Your task to perform on an android device: Clear all items from cart on bestbuy. Image 0: 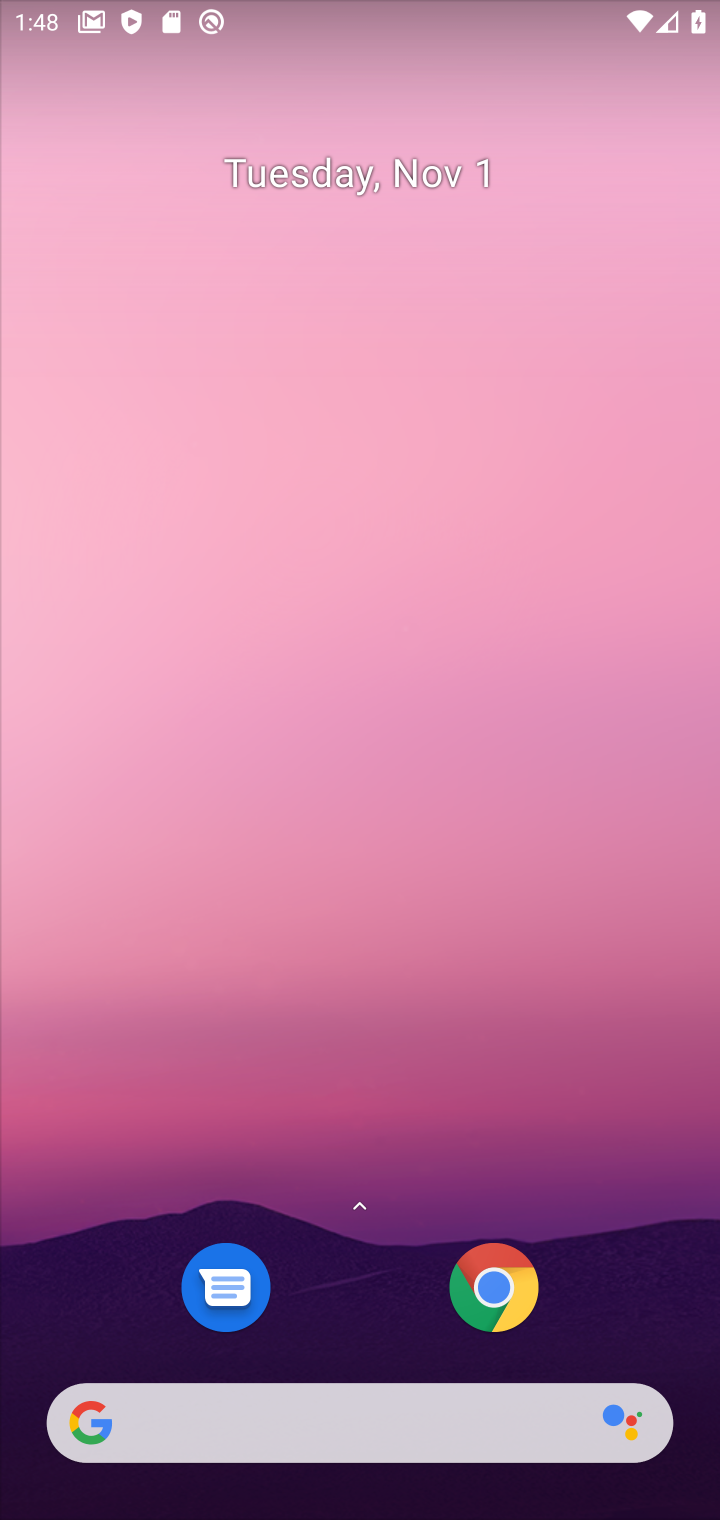
Step 0: drag from (332, 1337) to (436, 531)
Your task to perform on an android device: Clear all items from cart on bestbuy. Image 1: 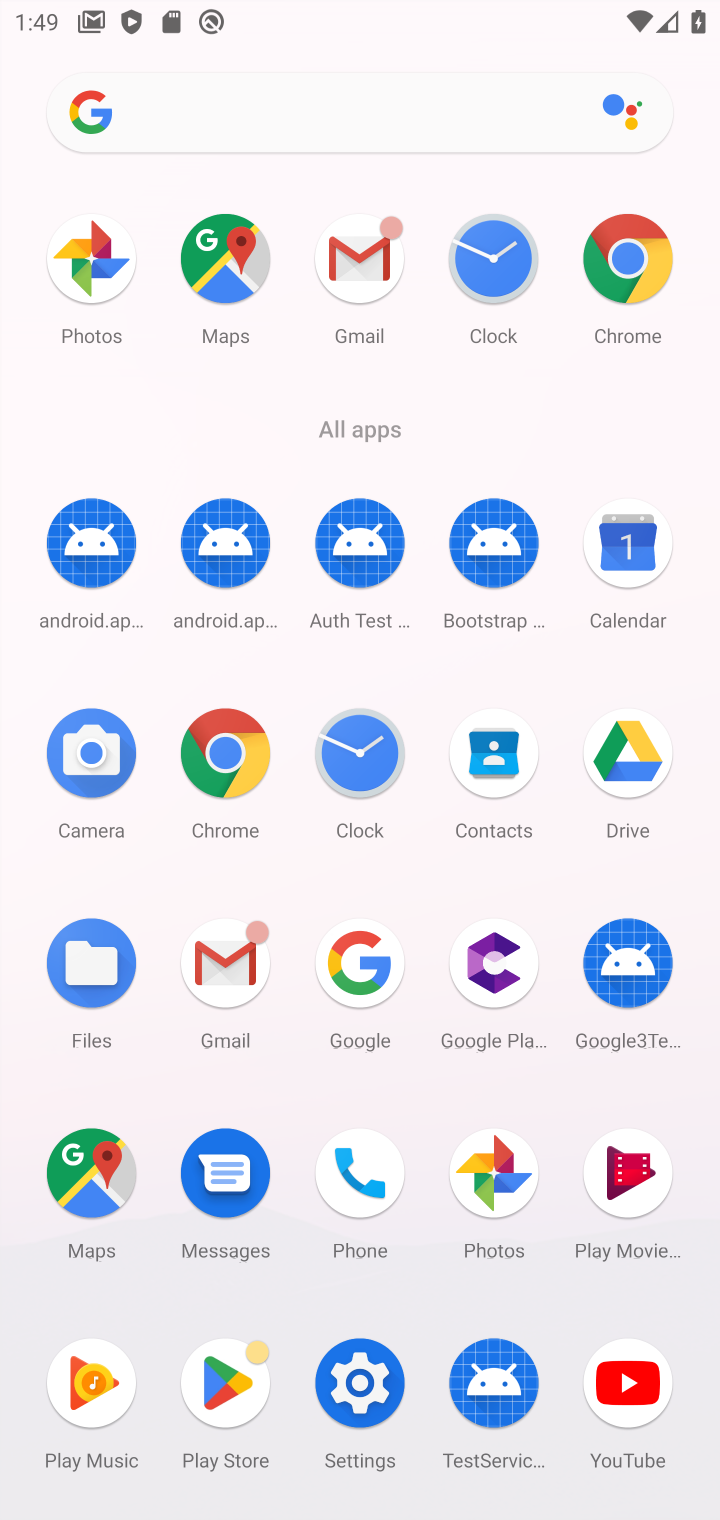
Step 1: click (229, 753)
Your task to perform on an android device: Clear all items from cart on bestbuy. Image 2: 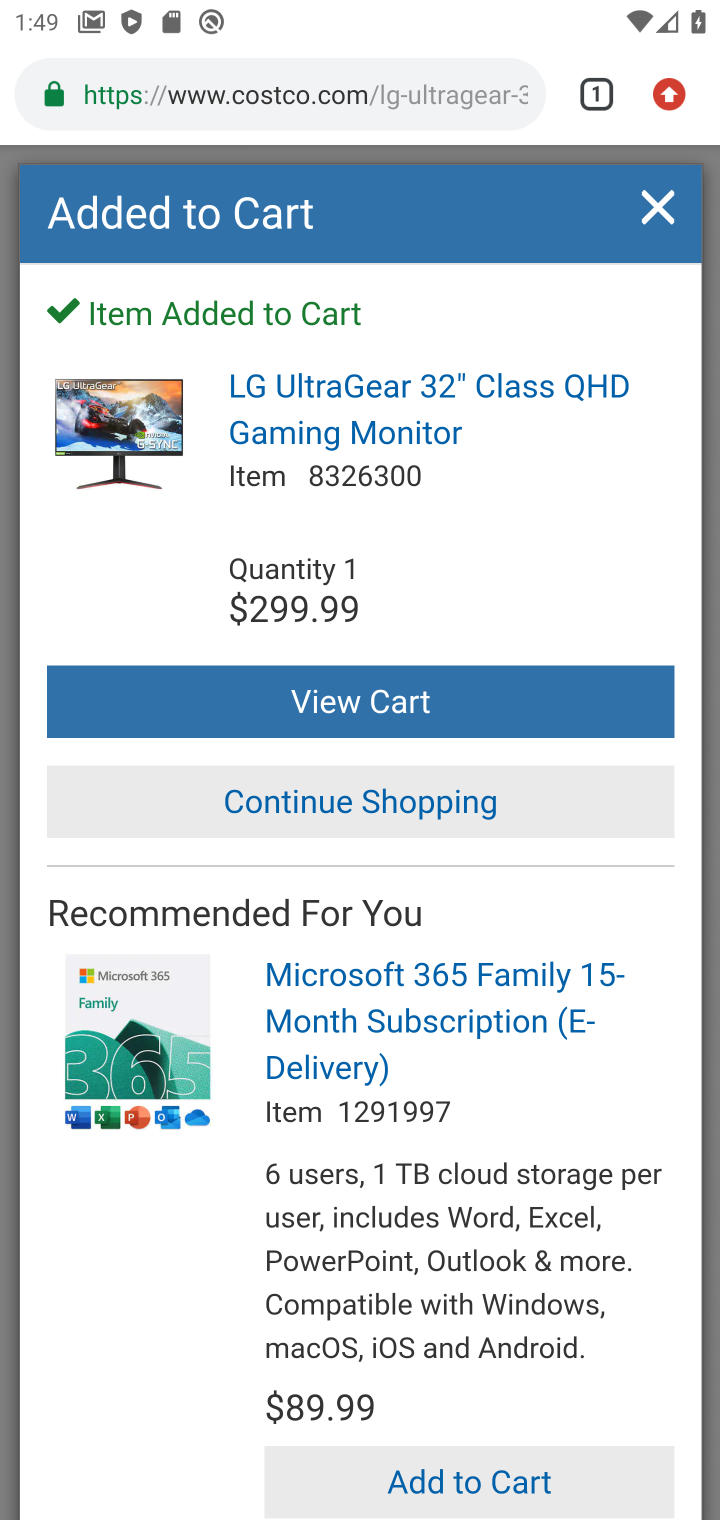
Step 2: drag from (387, 198) to (235, 662)
Your task to perform on an android device: Clear all items from cart on bestbuy. Image 3: 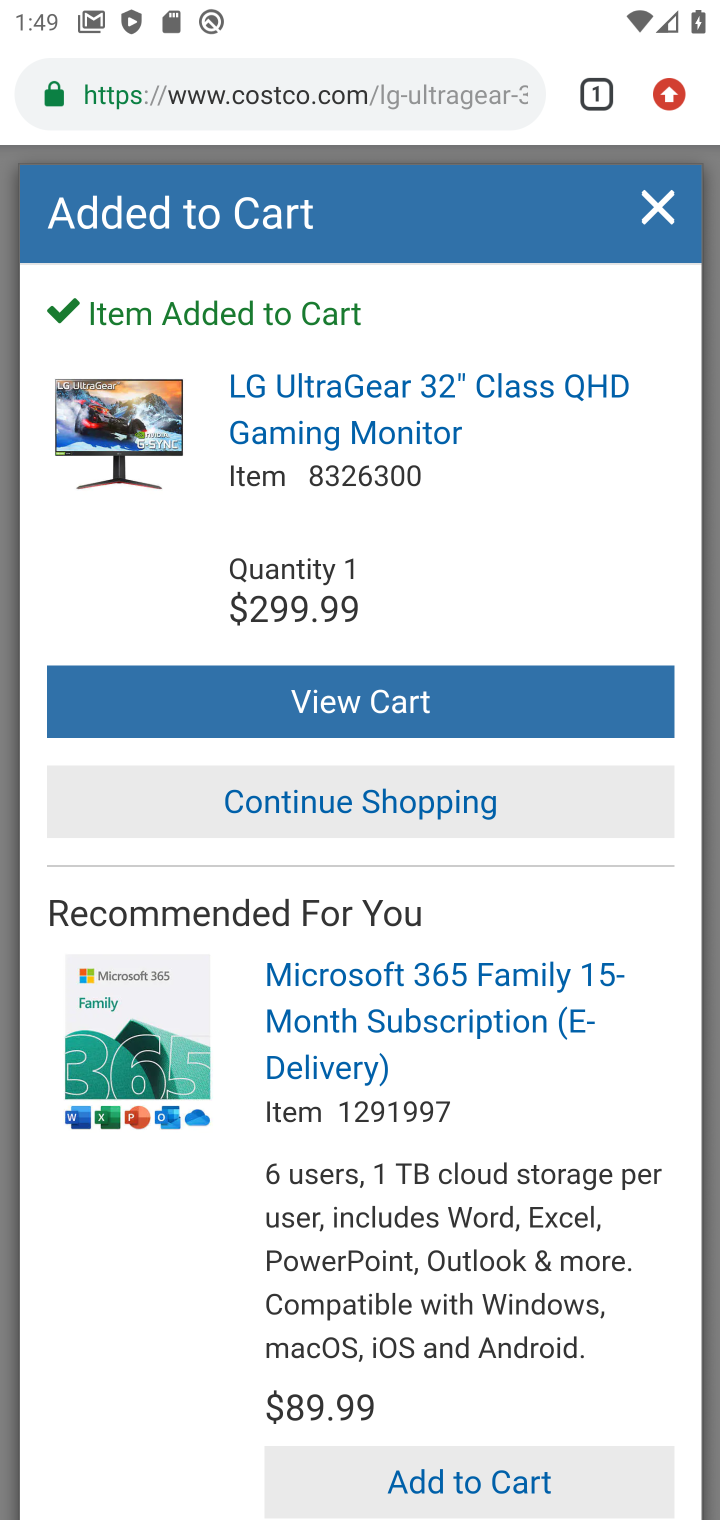
Step 3: click (401, 103)
Your task to perform on an android device: Clear all items from cart on bestbuy. Image 4: 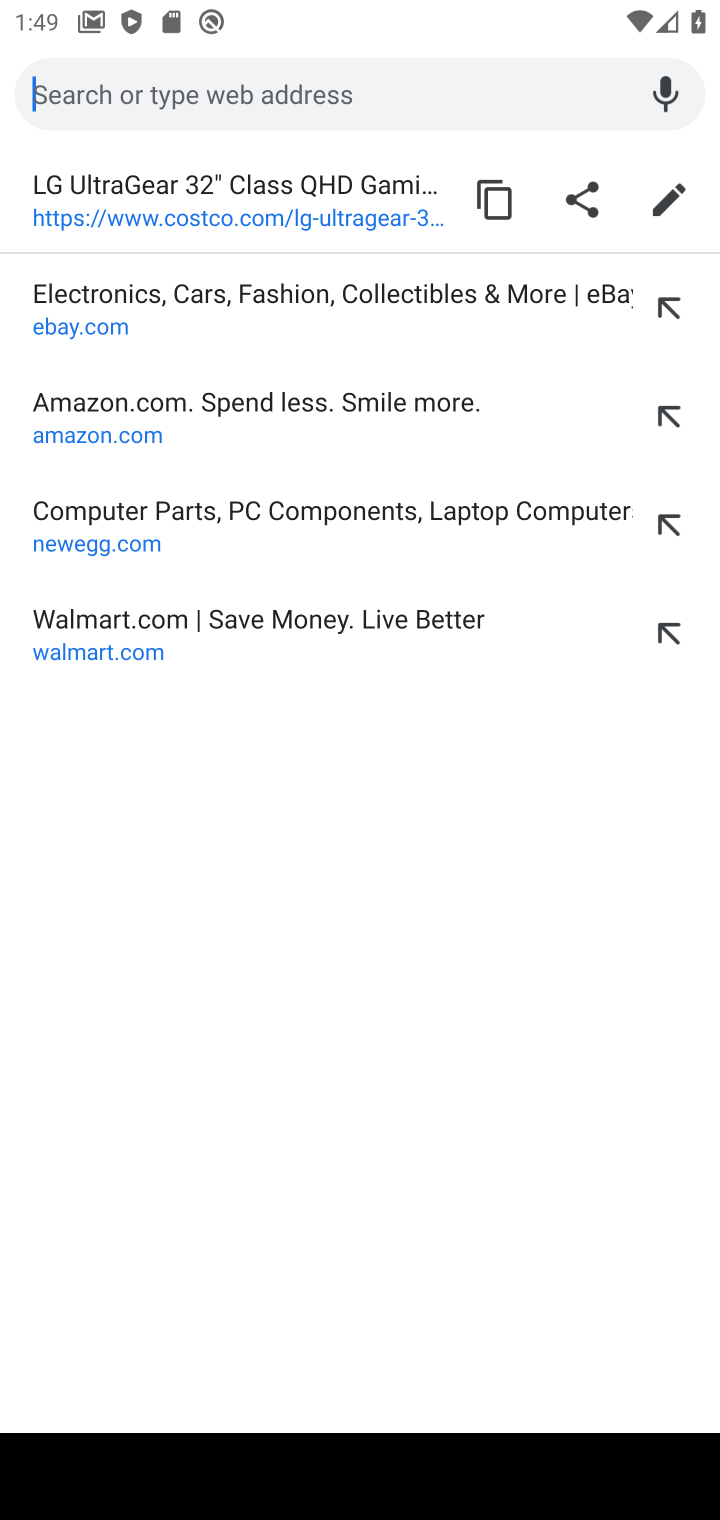
Step 4: type "bestbuy.com"
Your task to perform on an android device: Clear all items from cart on bestbuy. Image 5: 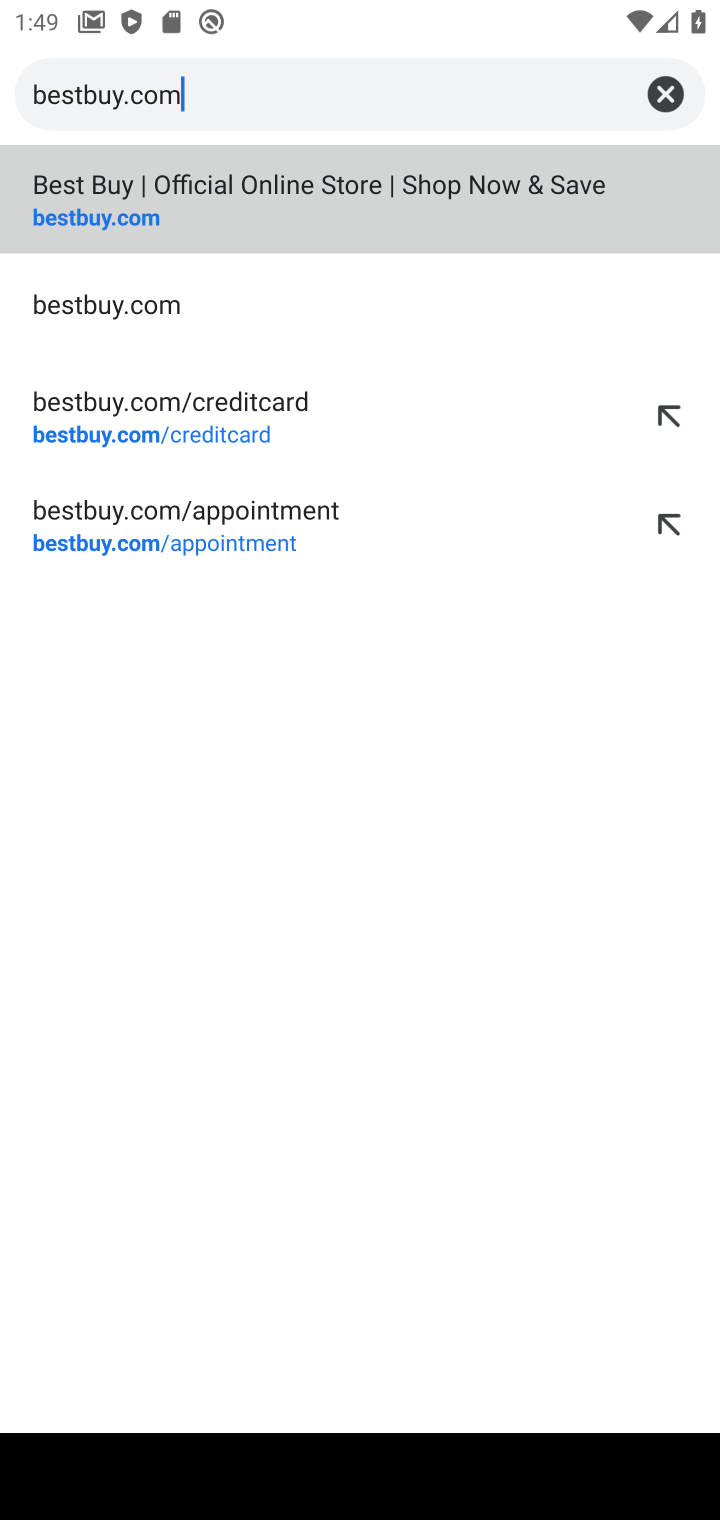
Step 5: press enter
Your task to perform on an android device: Clear all items from cart on bestbuy. Image 6: 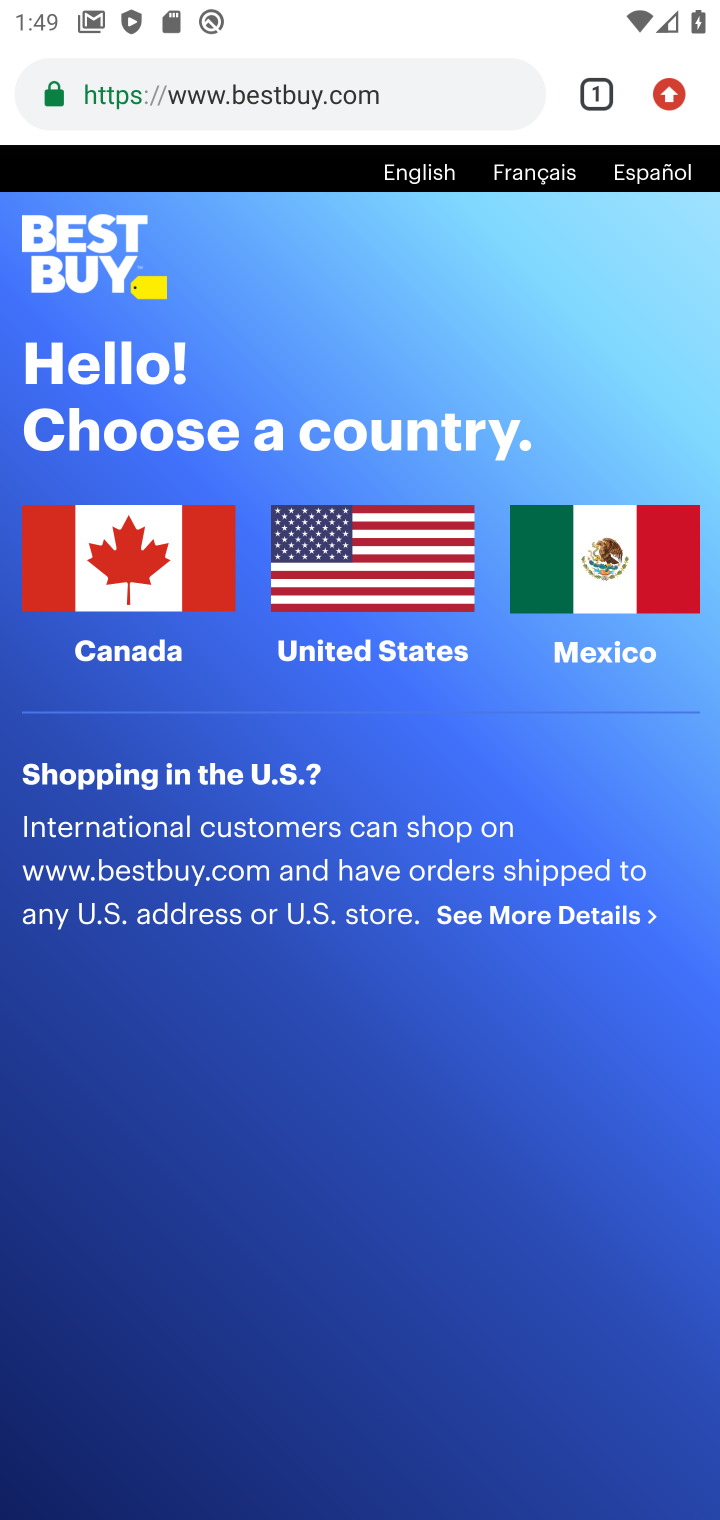
Step 6: click (128, 534)
Your task to perform on an android device: Clear all items from cart on bestbuy. Image 7: 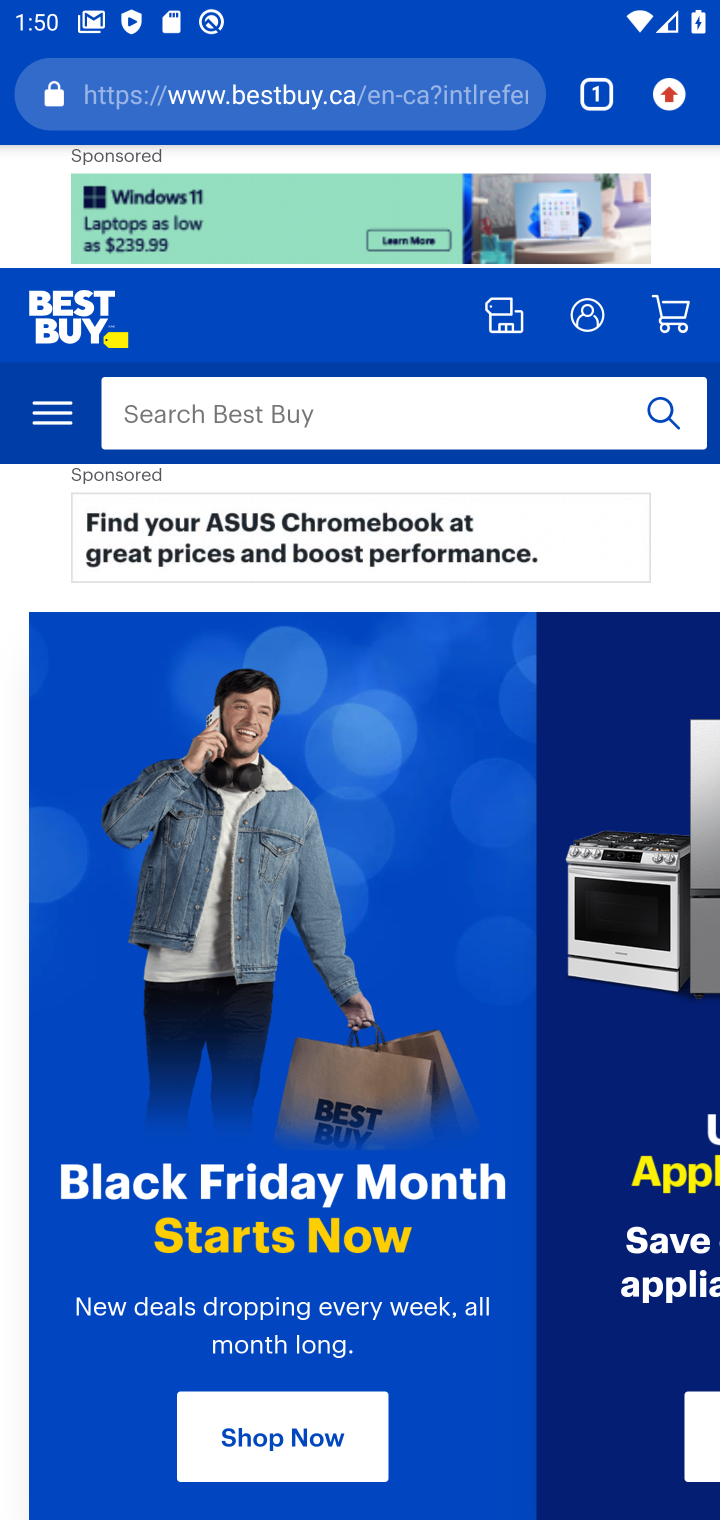
Step 7: click (657, 320)
Your task to perform on an android device: Clear all items from cart on bestbuy. Image 8: 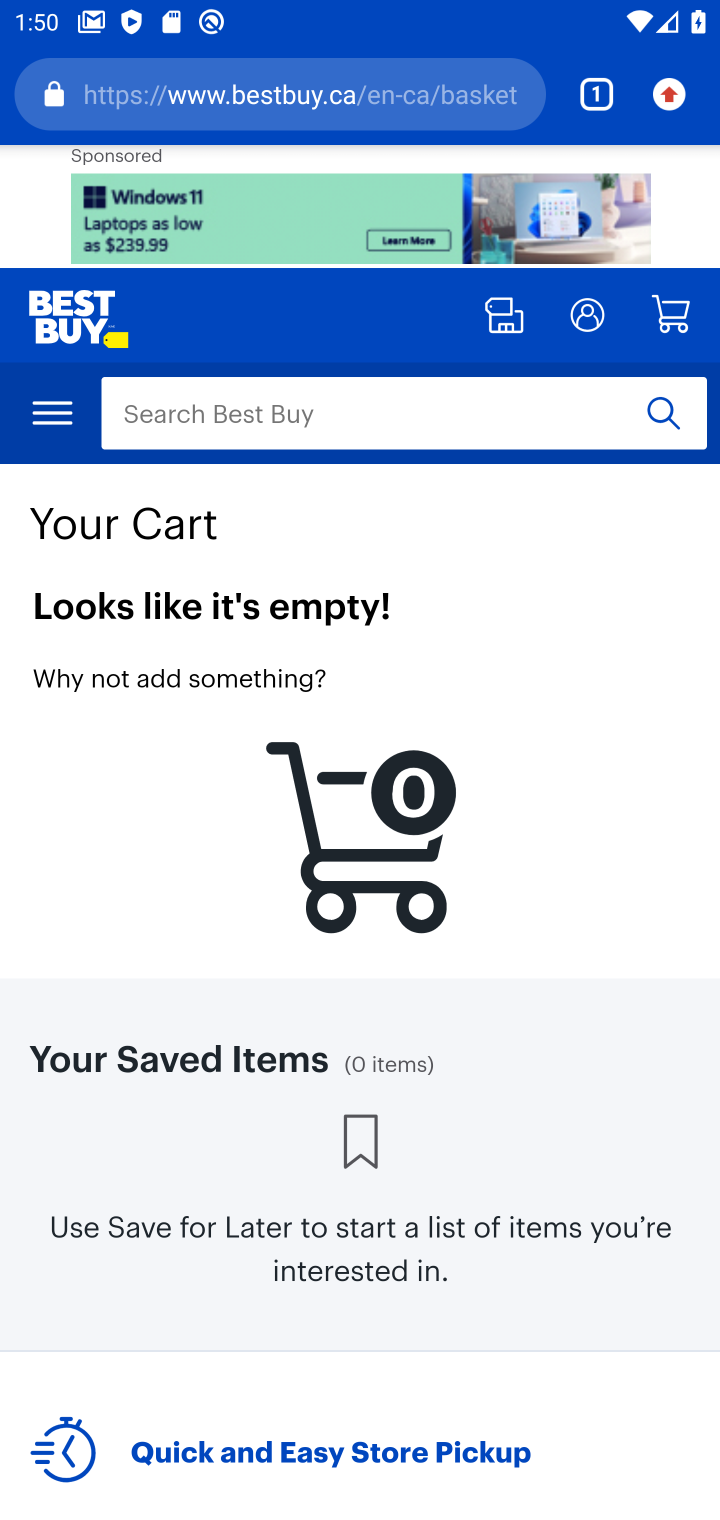
Step 8: task complete